Your task to perform on an android device: Search for sushi restaurants on Maps Image 0: 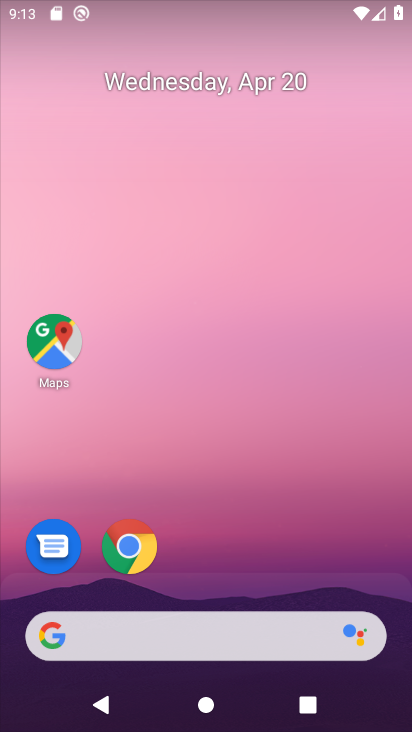
Step 0: click (56, 353)
Your task to perform on an android device: Search for sushi restaurants on Maps Image 1: 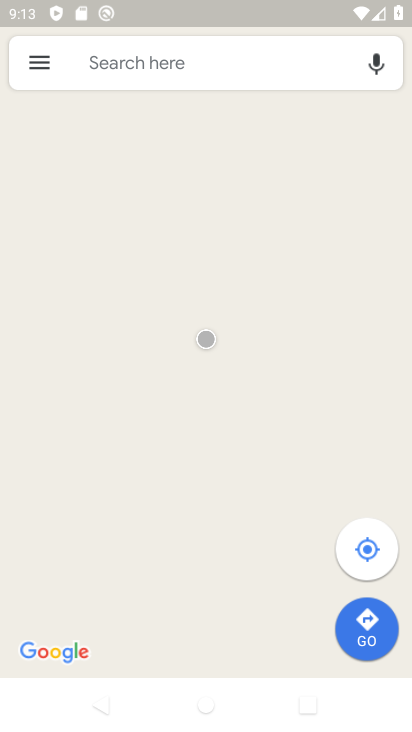
Step 1: click (144, 72)
Your task to perform on an android device: Search for sushi restaurants on Maps Image 2: 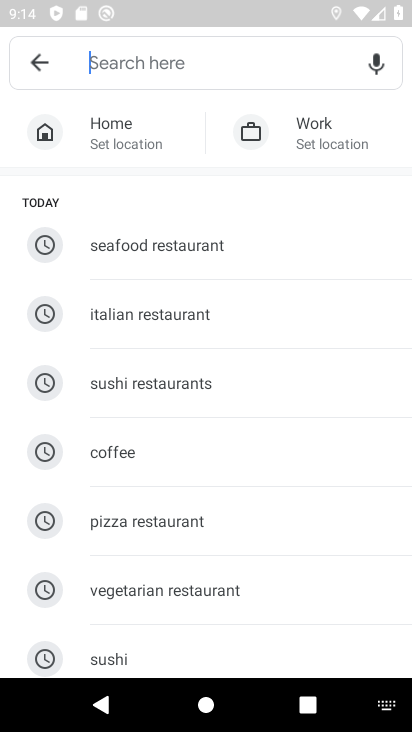
Step 2: click (151, 395)
Your task to perform on an android device: Search for sushi restaurants on Maps Image 3: 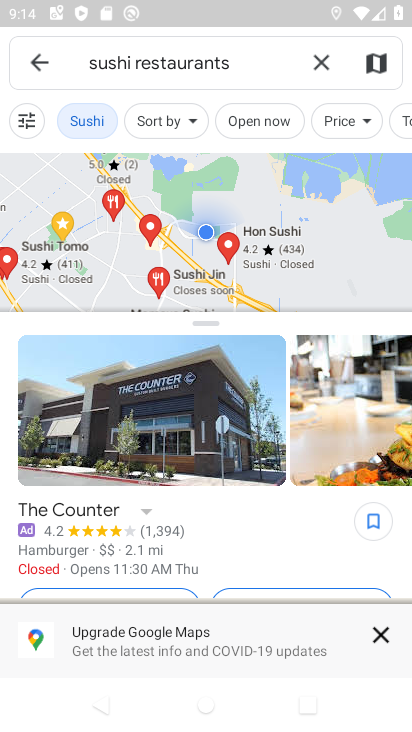
Step 3: task complete